Your task to perform on an android device: toggle data saver in the chrome app Image 0: 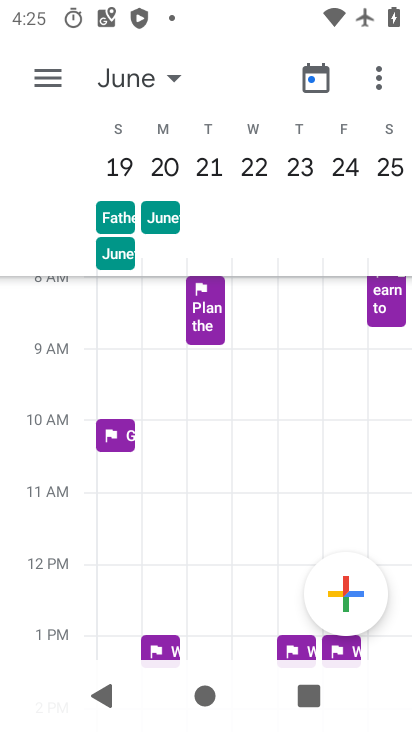
Step 0: press home button
Your task to perform on an android device: toggle data saver in the chrome app Image 1: 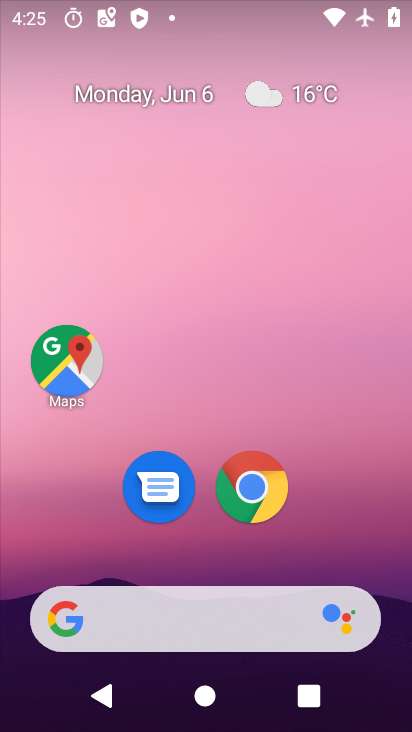
Step 1: click (251, 489)
Your task to perform on an android device: toggle data saver in the chrome app Image 2: 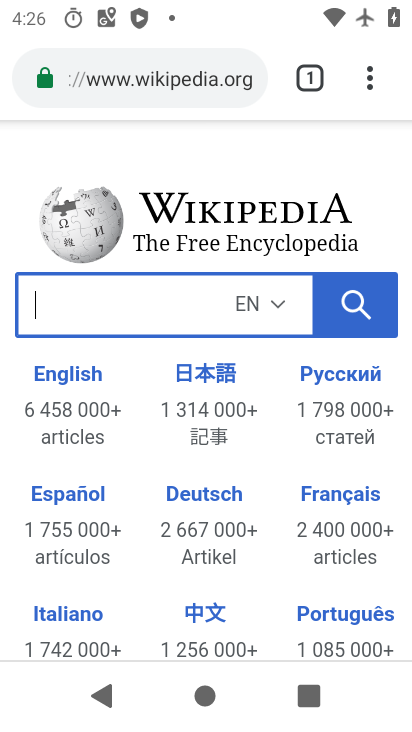
Step 2: drag from (374, 75) to (176, 572)
Your task to perform on an android device: toggle data saver in the chrome app Image 3: 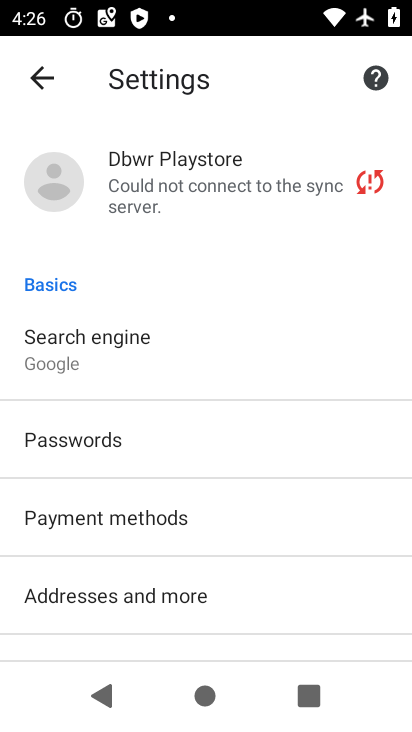
Step 3: drag from (192, 547) to (251, 120)
Your task to perform on an android device: toggle data saver in the chrome app Image 4: 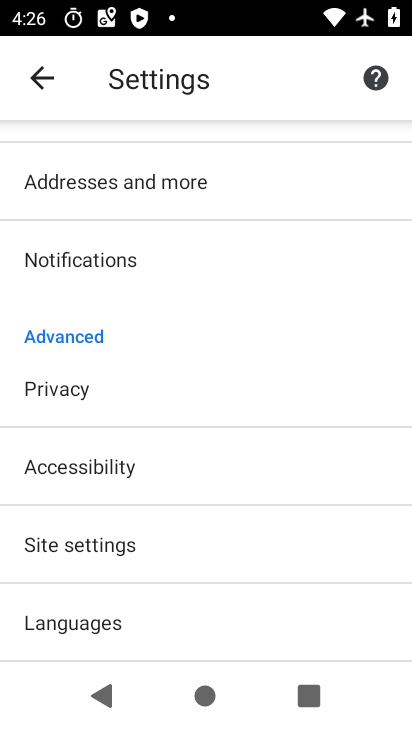
Step 4: drag from (257, 572) to (271, 229)
Your task to perform on an android device: toggle data saver in the chrome app Image 5: 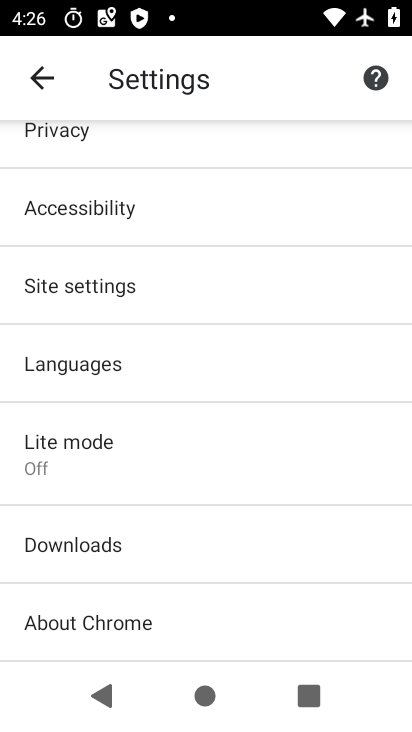
Step 5: click (151, 473)
Your task to perform on an android device: toggle data saver in the chrome app Image 6: 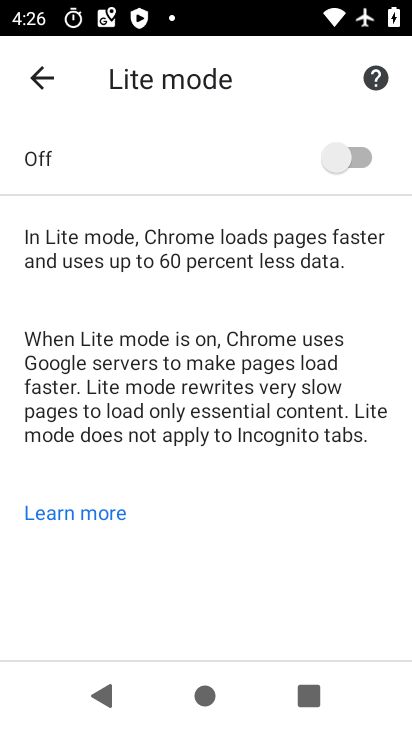
Step 6: click (339, 148)
Your task to perform on an android device: toggle data saver in the chrome app Image 7: 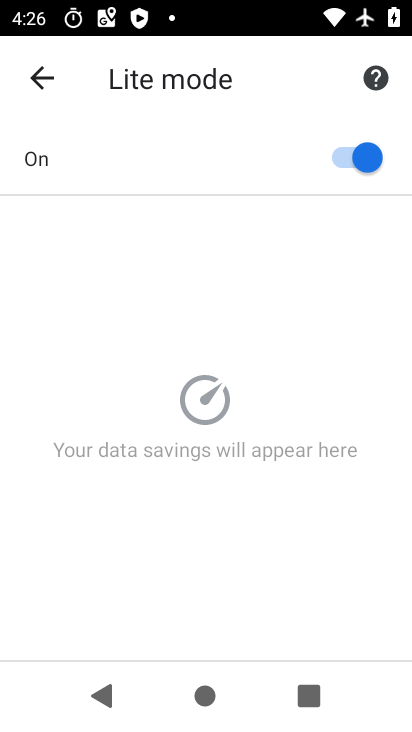
Step 7: task complete